Your task to perform on an android device: install app "Paramount+ | Peak Streaming" Image 0: 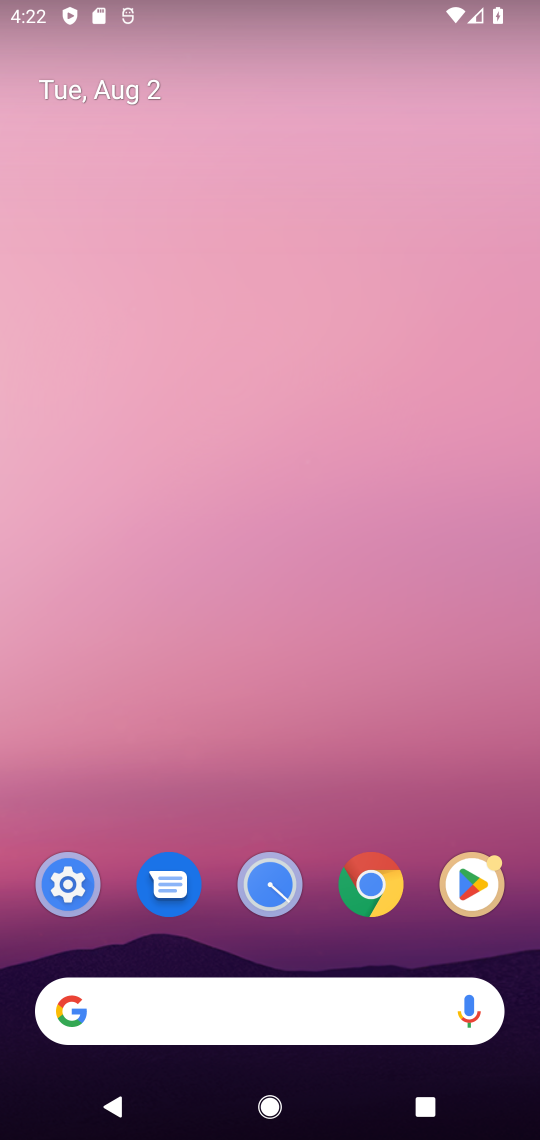
Step 0: drag from (516, 922) to (503, 419)
Your task to perform on an android device: install app "Paramount+ | Peak Streaming" Image 1: 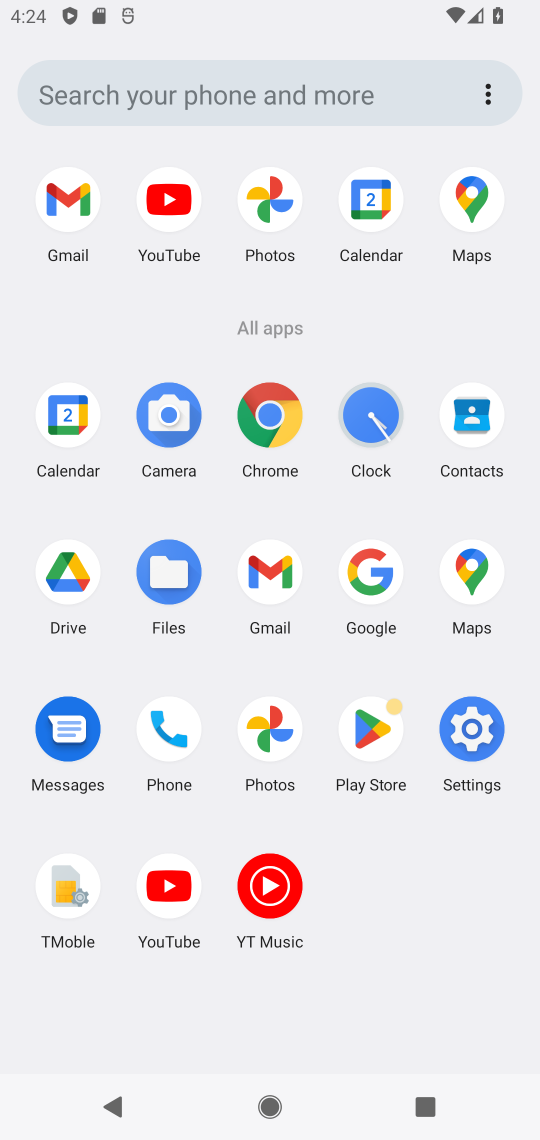
Step 1: click (378, 714)
Your task to perform on an android device: install app "Paramount+ | Peak Streaming" Image 2: 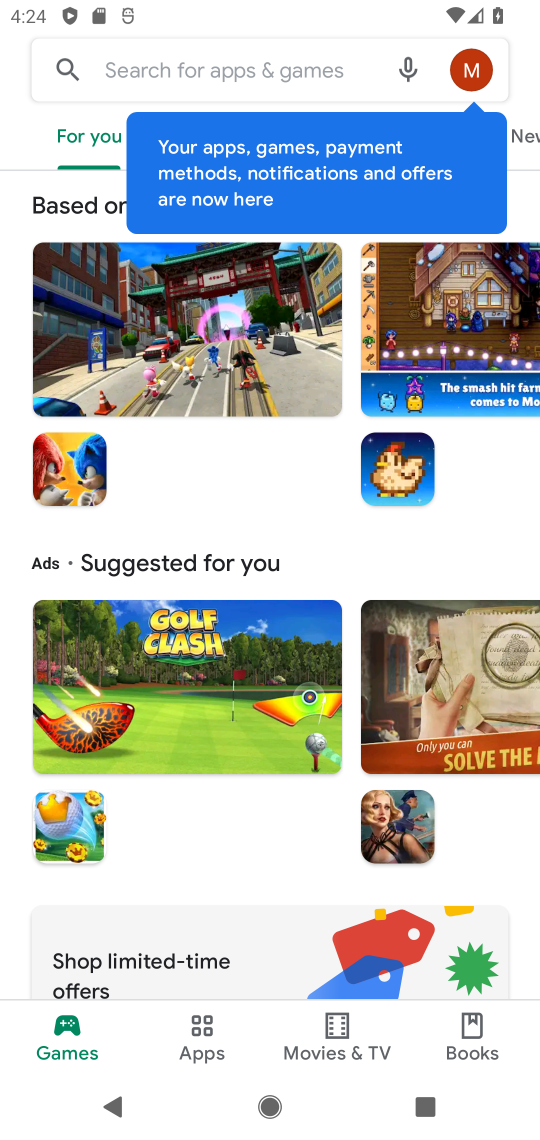
Step 2: click (150, 63)
Your task to perform on an android device: install app "Paramount+ | Peak Streaming" Image 3: 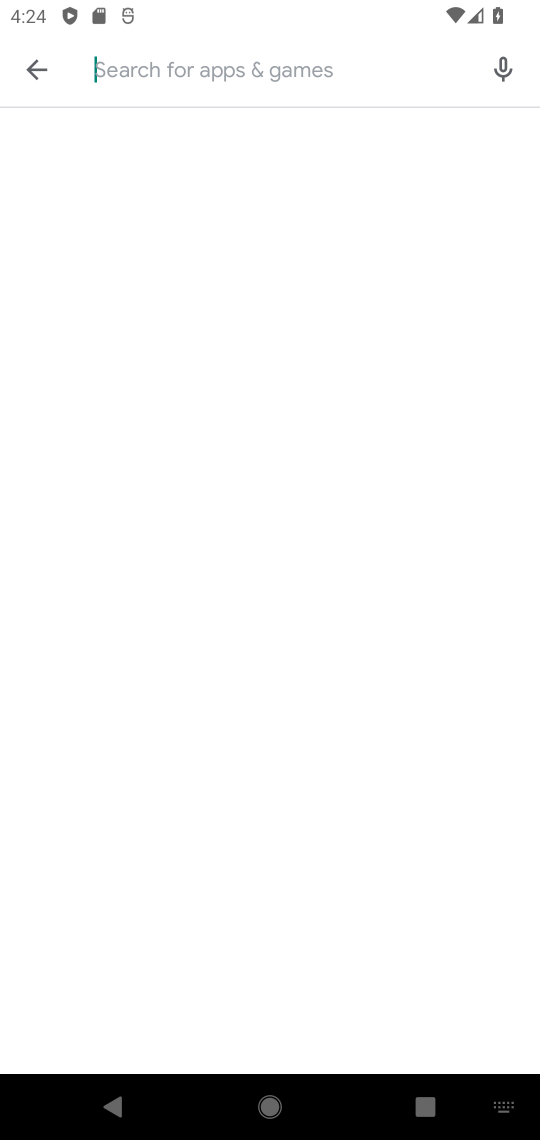
Step 3: click (150, 63)
Your task to perform on an android device: install app "Paramount+ | Peak Streaming" Image 4: 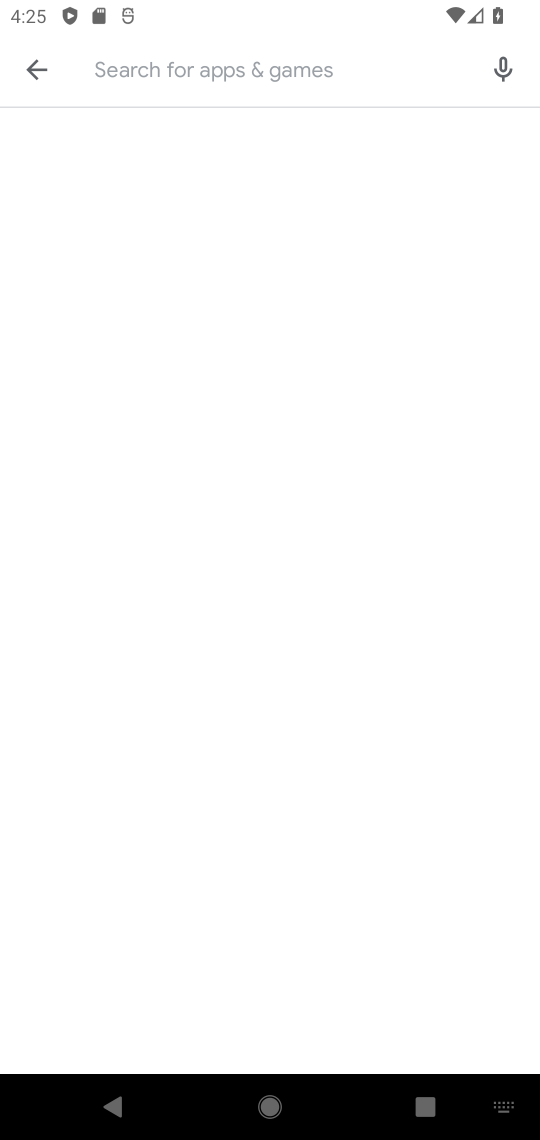
Step 4: type "install app "Paramount+ | Peak Streaming""
Your task to perform on an android device: install app "Paramount+ | Peak Streaming" Image 5: 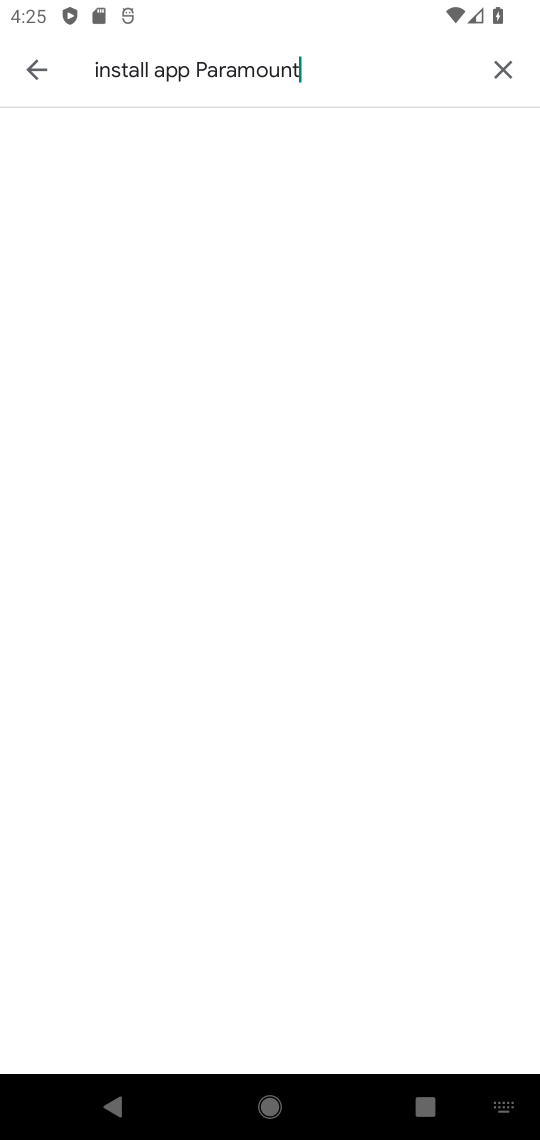
Step 5: type ""
Your task to perform on an android device: install app "Paramount+ | Peak Streaming" Image 6: 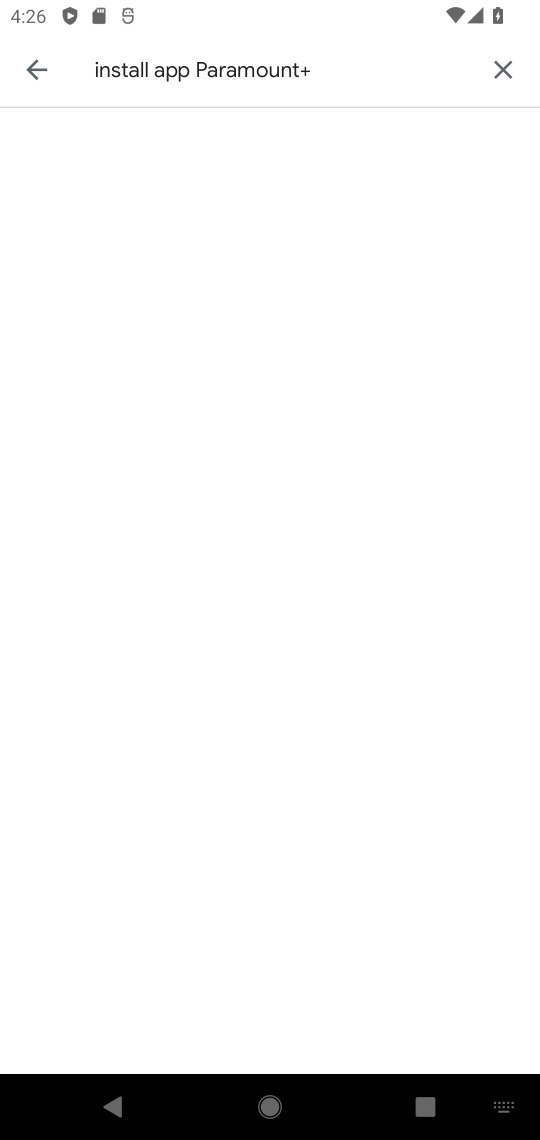
Step 6: click (194, 65)
Your task to perform on an android device: install app "Paramount+ | Peak Streaming" Image 7: 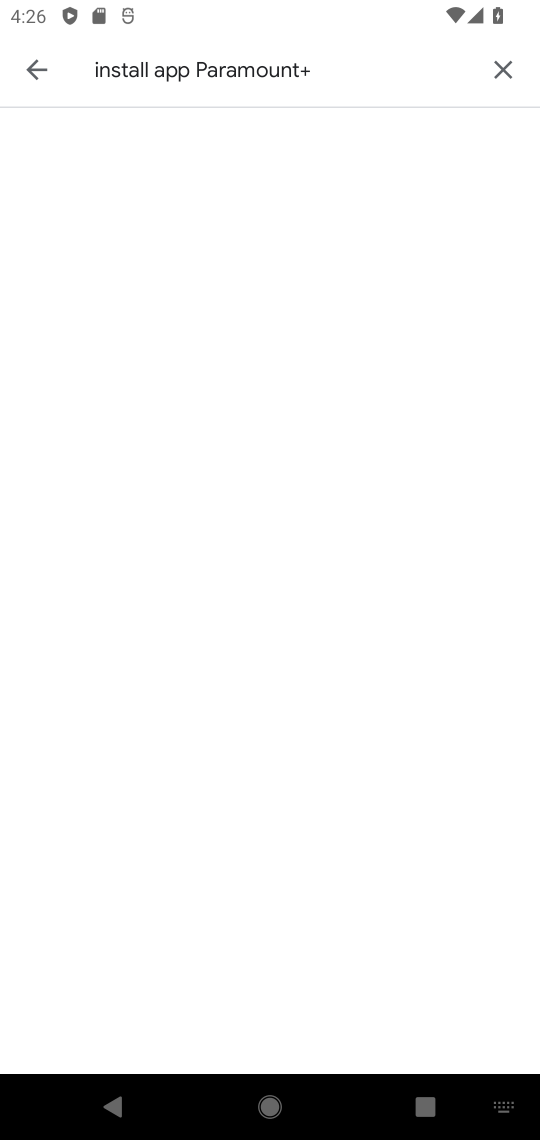
Step 7: click (512, 66)
Your task to perform on an android device: install app "Paramount+ | Peak Streaming" Image 8: 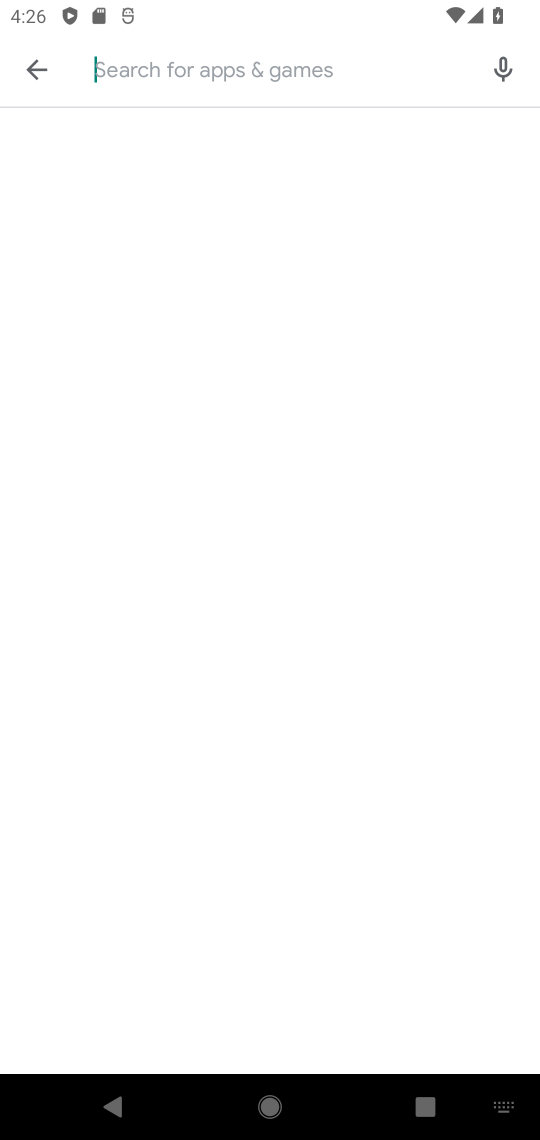
Step 8: click (411, 1123)
Your task to perform on an android device: install app "Paramount+ | Peak Streaming" Image 9: 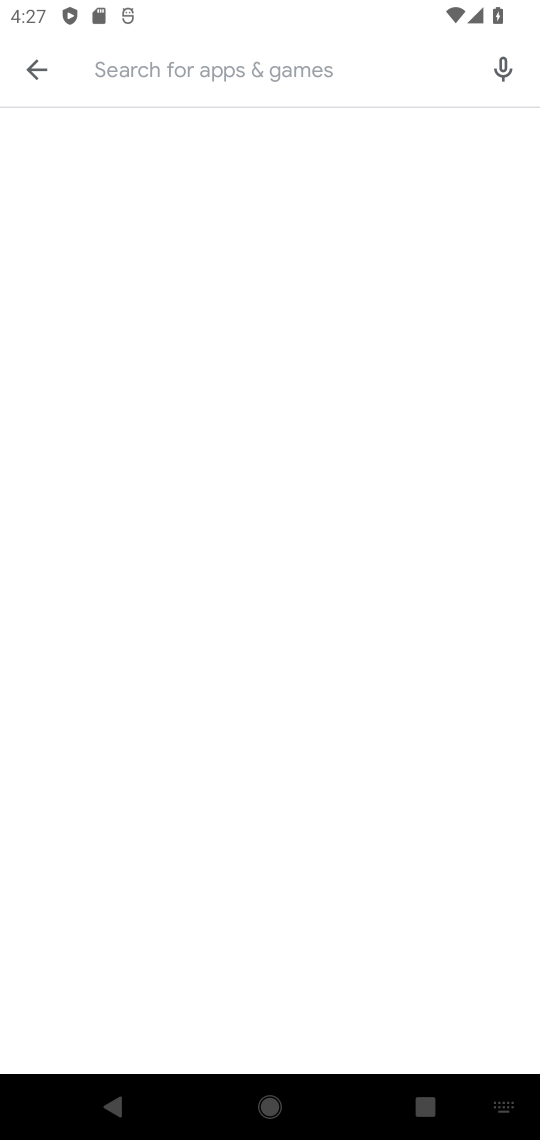
Step 9: type "Paramount+ | Peak Streaming\"
Your task to perform on an android device: install app "Paramount+ | Peak Streaming" Image 10: 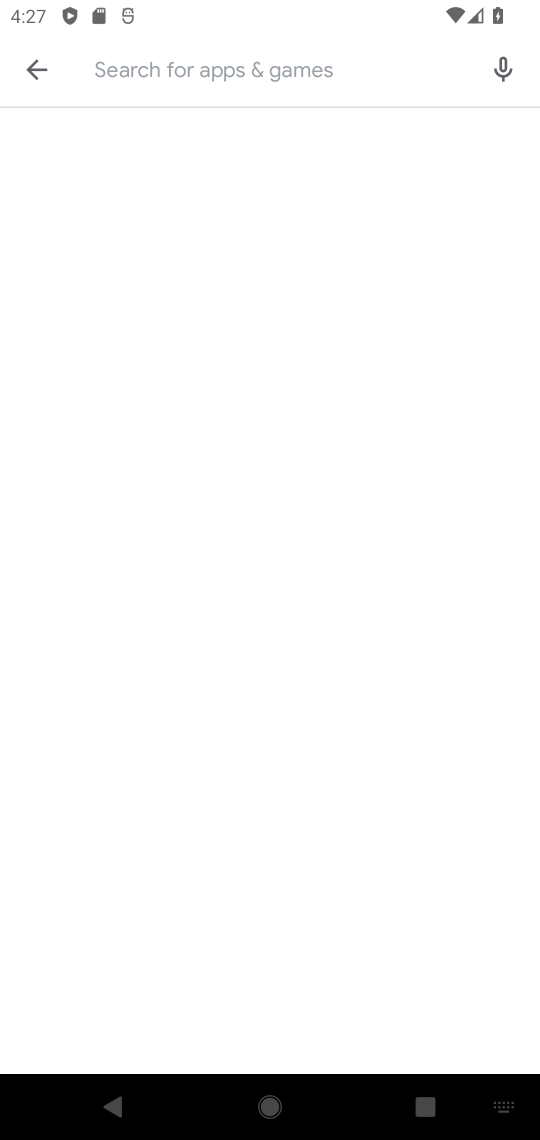
Step 10: type "paramount+ "
Your task to perform on an android device: install app "Paramount+ | Peak Streaming" Image 11: 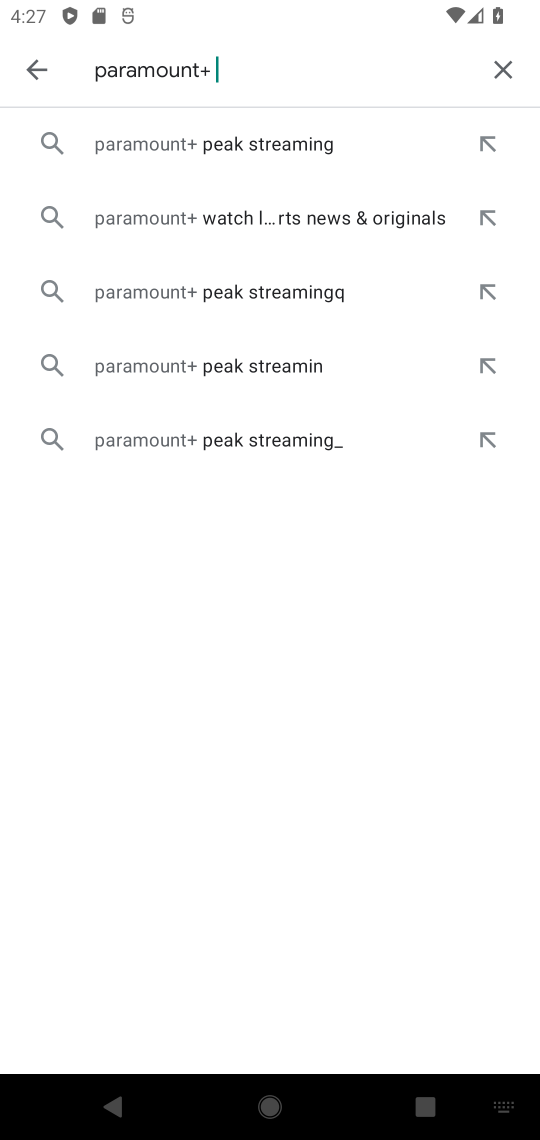
Step 11: click (282, 146)
Your task to perform on an android device: install app "Paramount+ | Peak Streaming" Image 12: 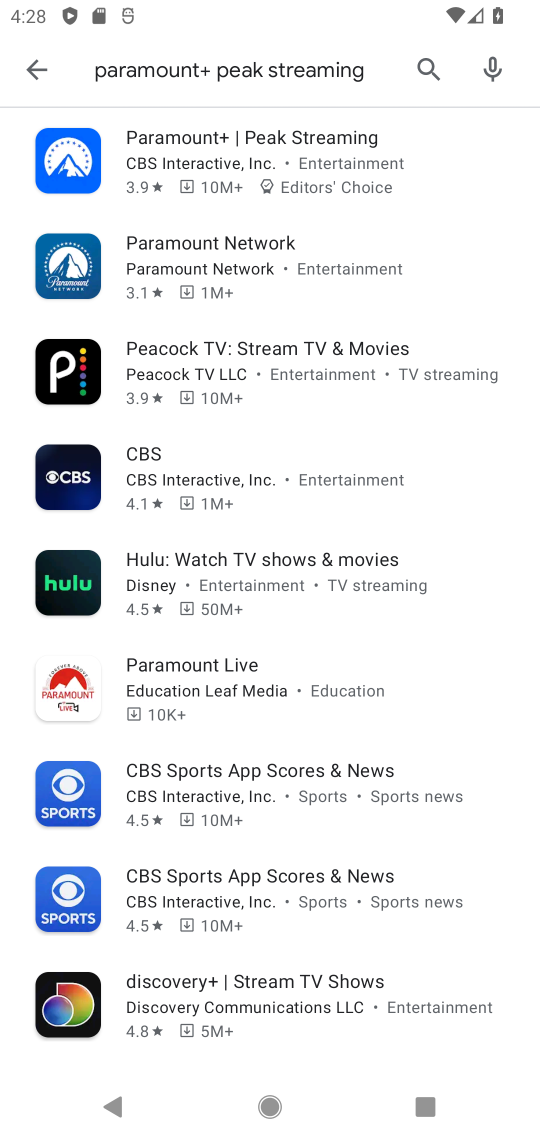
Step 12: click (282, 146)
Your task to perform on an android device: install app "Paramount+ | Peak Streaming" Image 13: 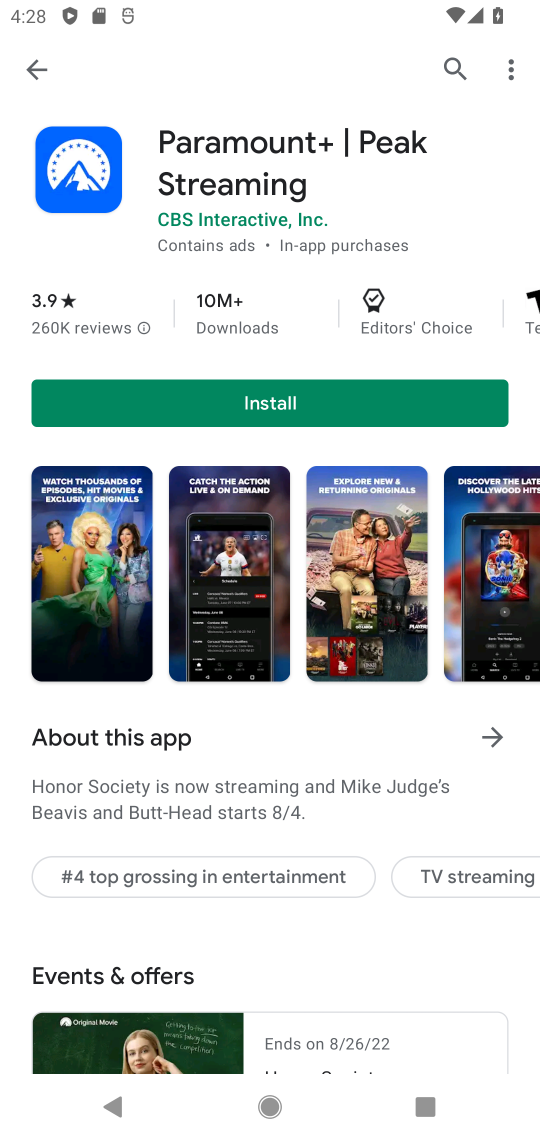
Step 13: click (145, 407)
Your task to perform on an android device: install app "Paramount+ | Peak Streaming" Image 14: 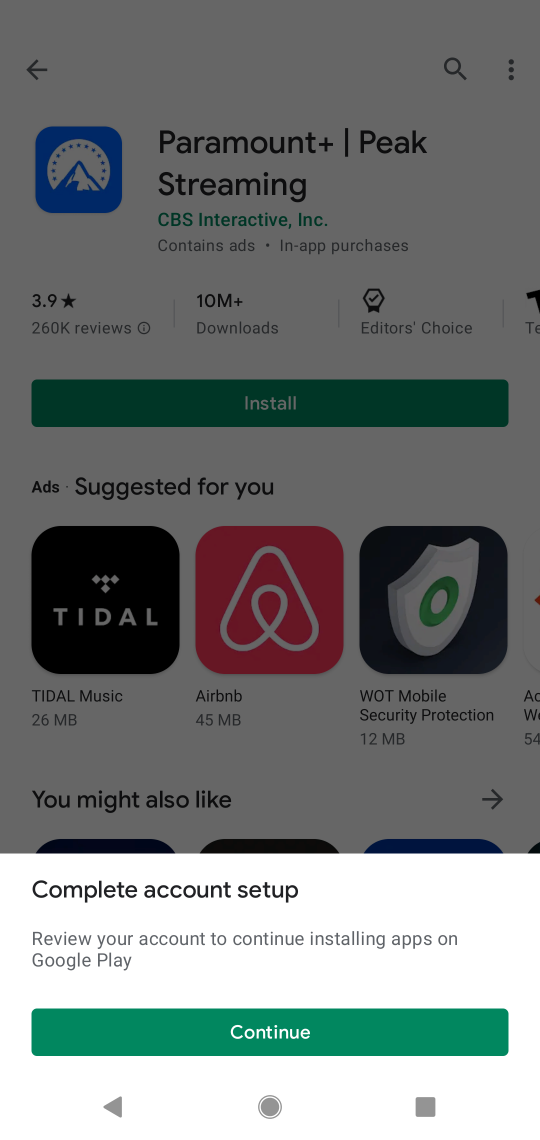
Step 14: click (193, 1034)
Your task to perform on an android device: install app "Paramount+ | Peak Streaming" Image 15: 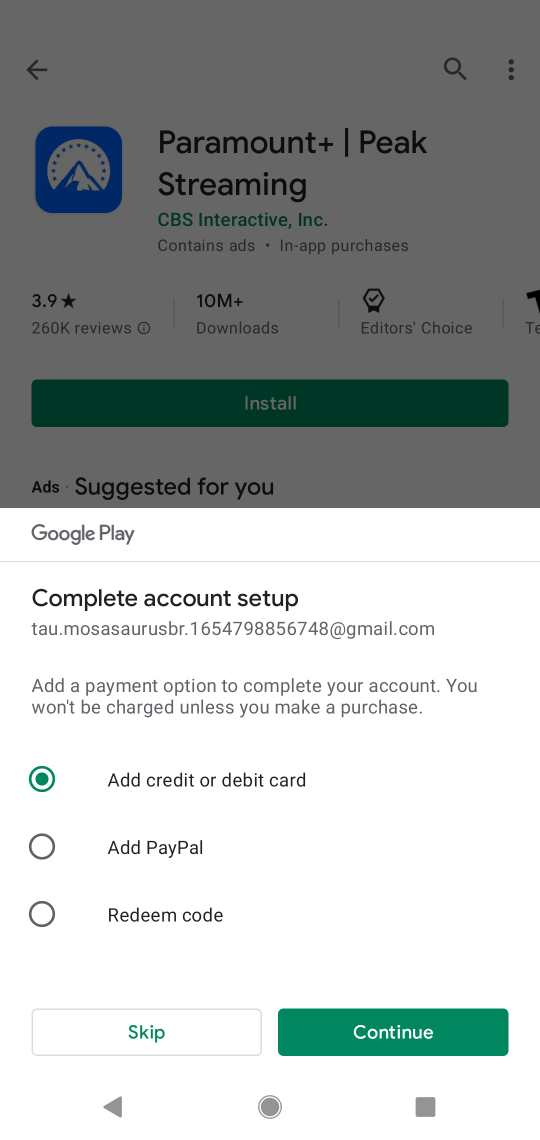
Step 15: click (135, 1044)
Your task to perform on an android device: install app "Paramount+ | Peak Streaming" Image 16: 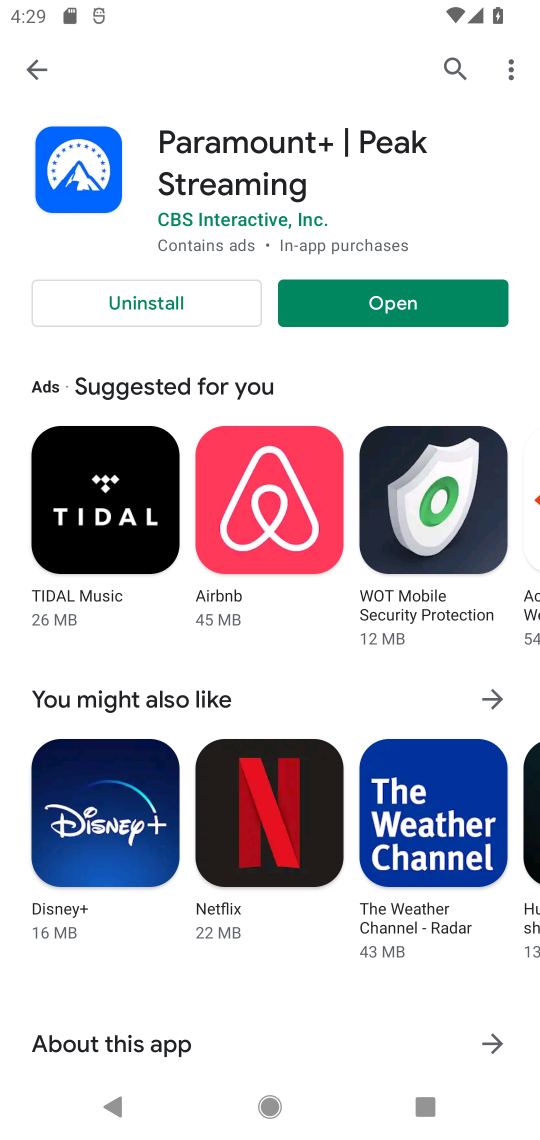
Step 16: task complete